Your task to perform on an android device: star an email in the gmail app Image 0: 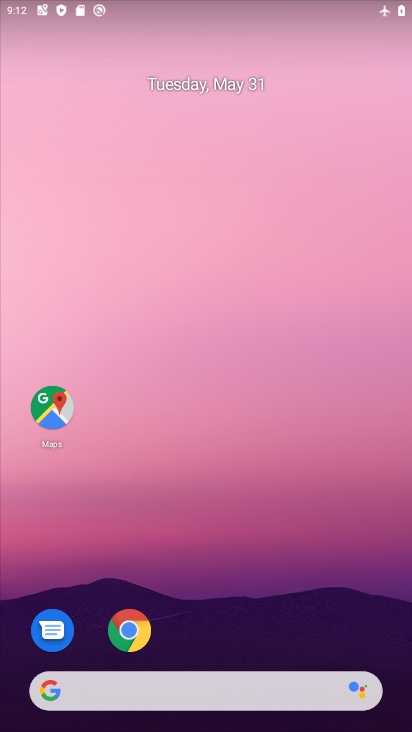
Step 0: drag from (176, 653) to (248, 286)
Your task to perform on an android device: star an email in the gmail app Image 1: 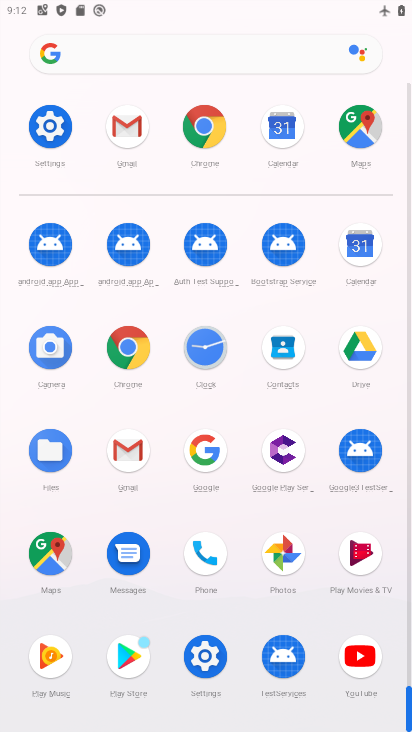
Step 1: click (127, 445)
Your task to perform on an android device: star an email in the gmail app Image 2: 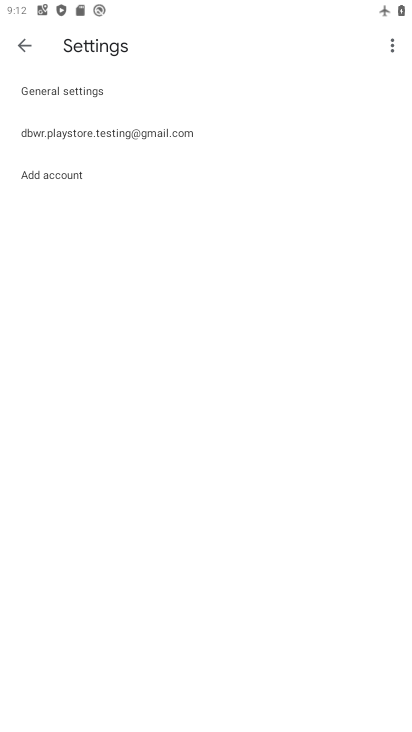
Step 2: click (20, 44)
Your task to perform on an android device: star an email in the gmail app Image 3: 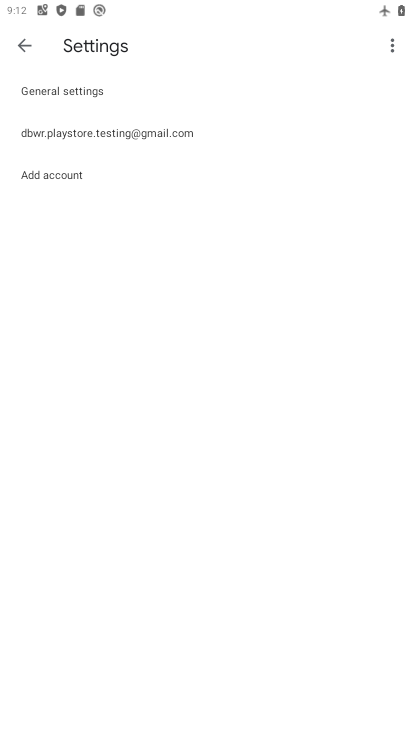
Step 3: click (20, 44)
Your task to perform on an android device: star an email in the gmail app Image 4: 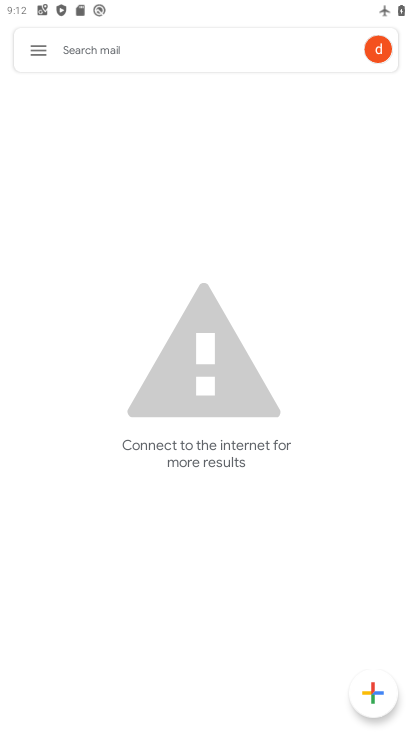
Step 4: click (38, 53)
Your task to perform on an android device: star an email in the gmail app Image 5: 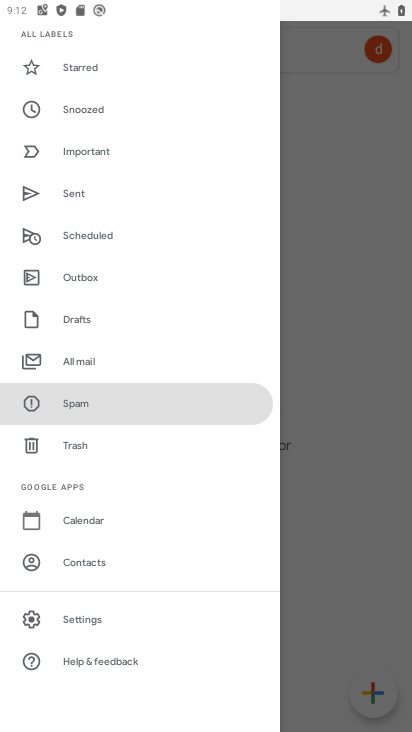
Step 5: click (103, 65)
Your task to perform on an android device: star an email in the gmail app Image 6: 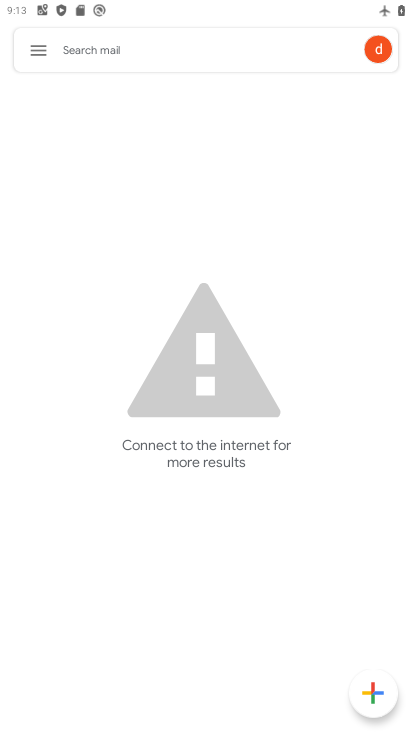
Step 6: task complete